Your task to perform on an android device: Find coffee shops on Maps Image 0: 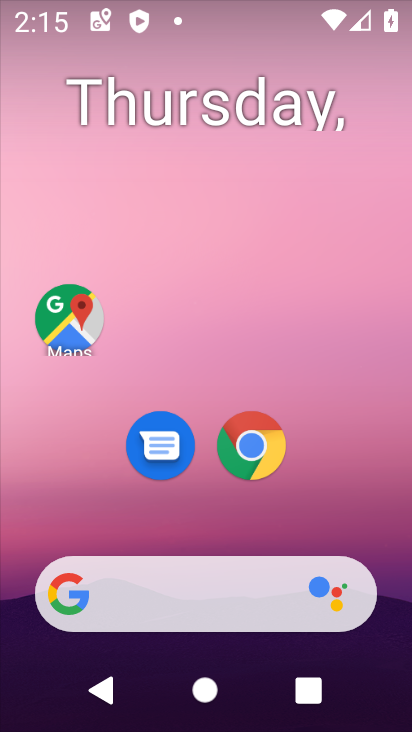
Step 0: press home button
Your task to perform on an android device: Find coffee shops on Maps Image 1: 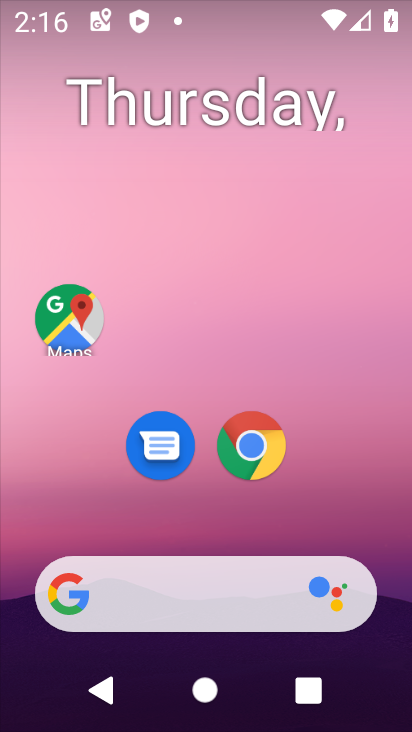
Step 1: click (73, 301)
Your task to perform on an android device: Find coffee shops on Maps Image 2: 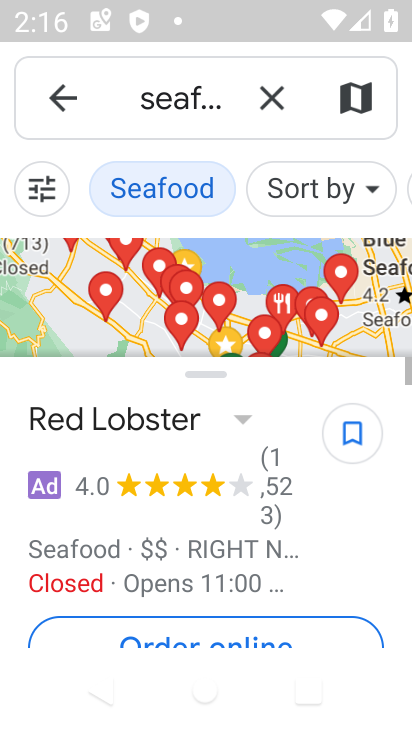
Step 2: click (268, 102)
Your task to perform on an android device: Find coffee shops on Maps Image 3: 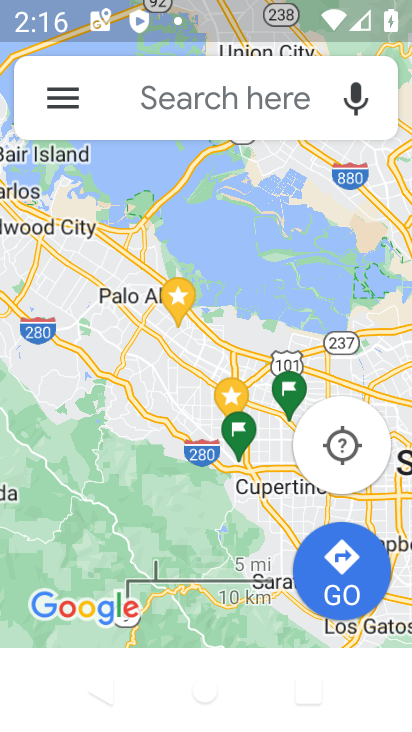
Step 3: click (216, 90)
Your task to perform on an android device: Find coffee shops on Maps Image 4: 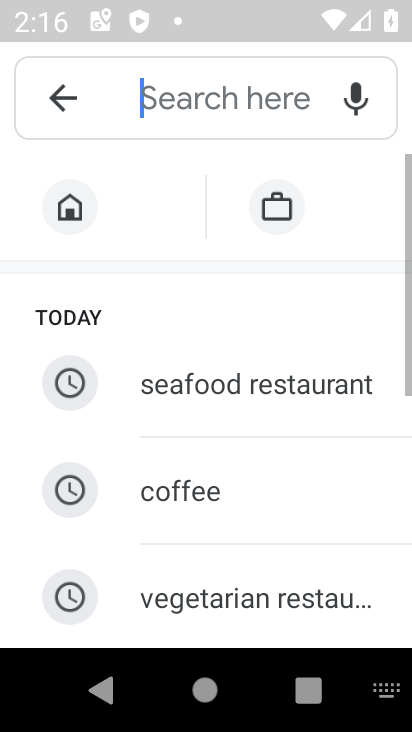
Step 4: click (135, 484)
Your task to perform on an android device: Find coffee shops on Maps Image 5: 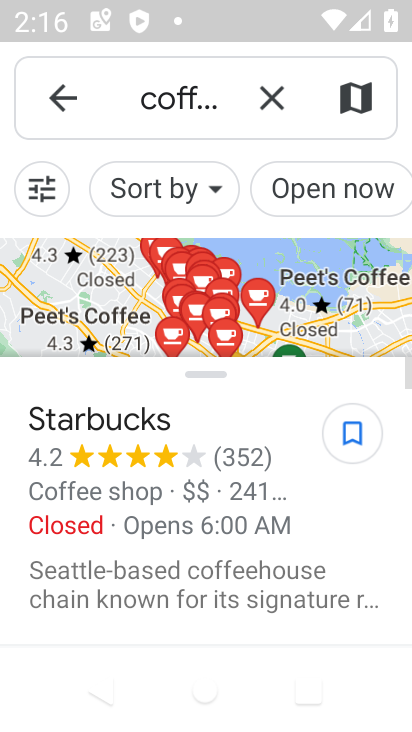
Step 5: task complete